Your task to perform on an android device: check battery use Image 0: 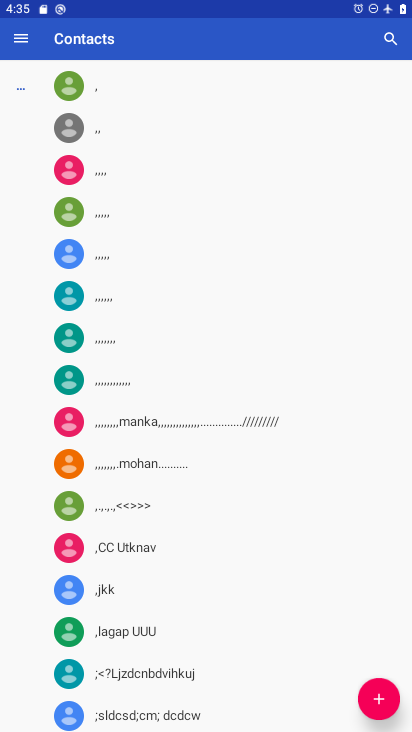
Step 0: press home button
Your task to perform on an android device: check battery use Image 1: 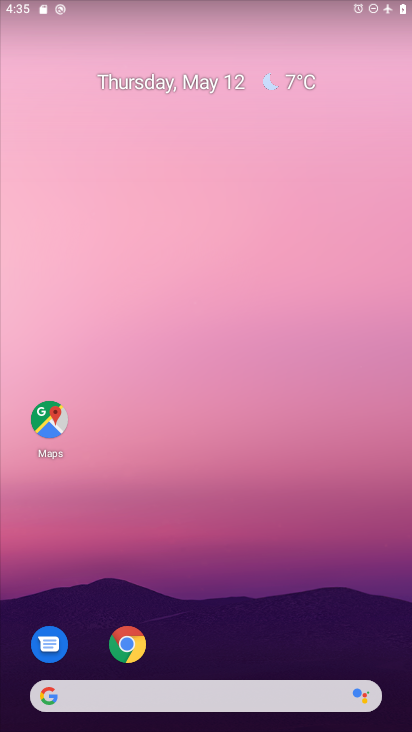
Step 1: drag from (191, 634) to (306, 58)
Your task to perform on an android device: check battery use Image 2: 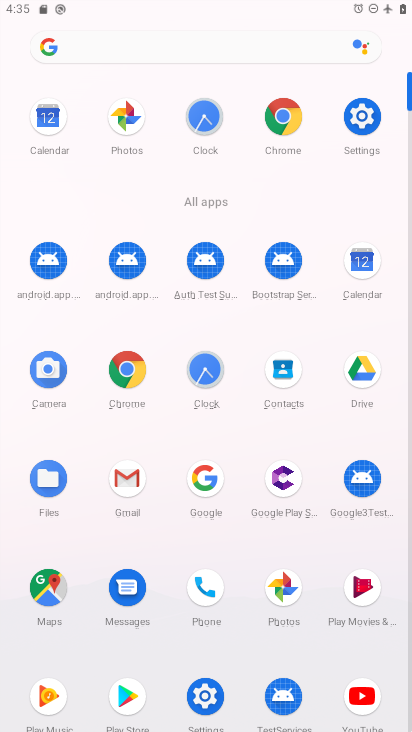
Step 2: click (353, 123)
Your task to perform on an android device: check battery use Image 3: 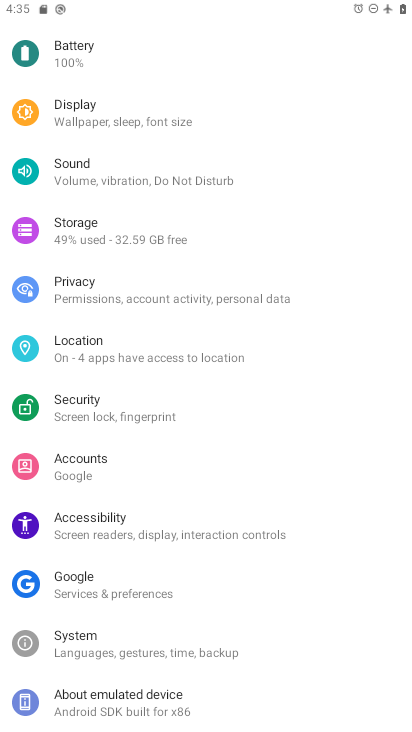
Step 3: click (104, 56)
Your task to perform on an android device: check battery use Image 4: 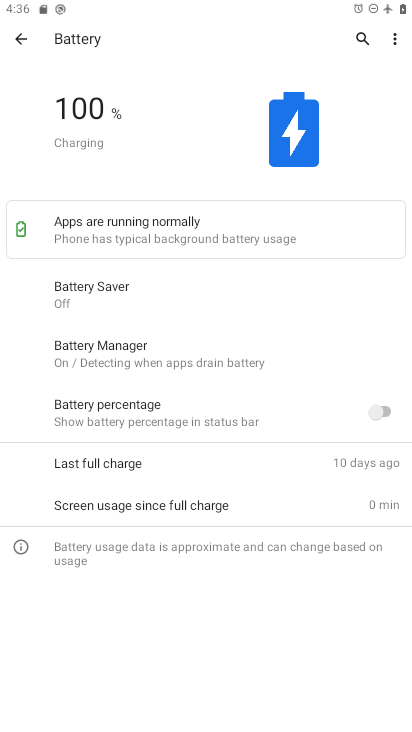
Step 4: click (394, 35)
Your task to perform on an android device: check battery use Image 5: 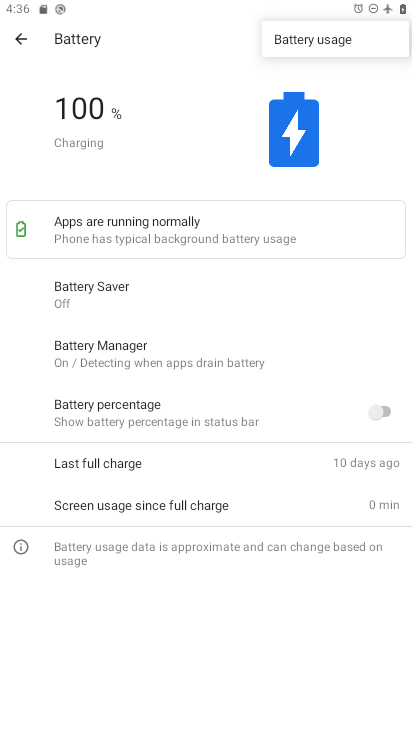
Step 5: click (366, 41)
Your task to perform on an android device: check battery use Image 6: 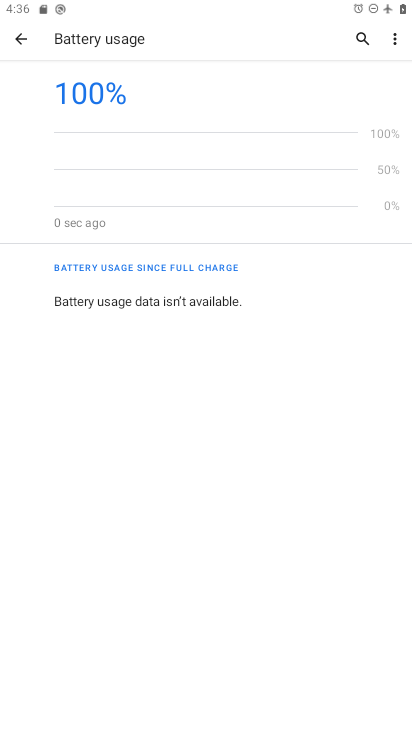
Step 6: task complete